Your task to perform on an android device: toggle notification dots Image 0: 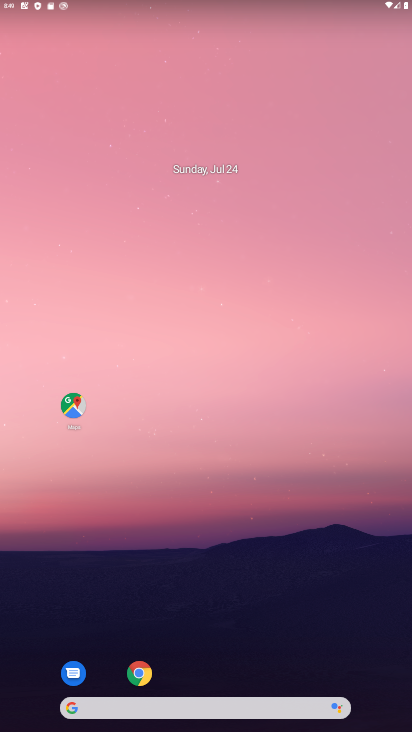
Step 0: drag from (188, 313) to (188, 147)
Your task to perform on an android device: toggle notification dots Image 1: 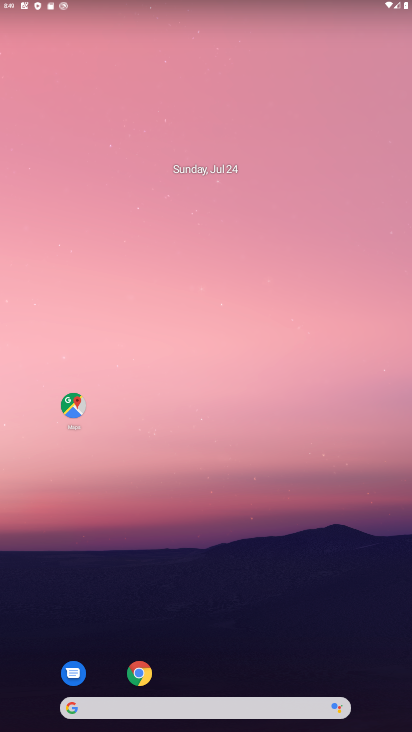
Step 1: drag from (176, 648) to (100, 25)
Your task to perform on an android device: toggle notification dots Image 2: 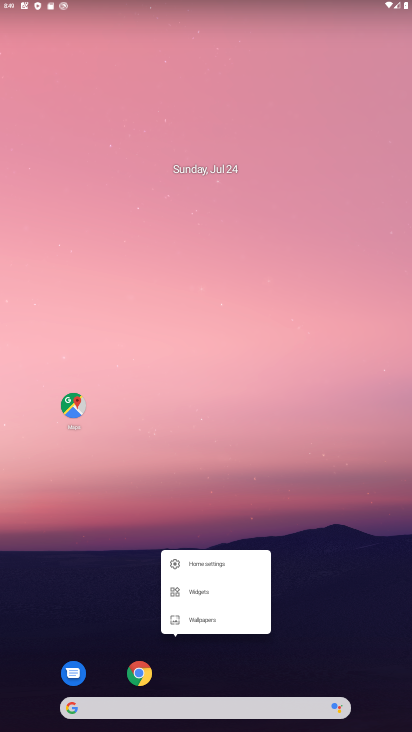
Step 2: click (321, 566)
Your task to perform on an android device: toggle notification dots Image 3: 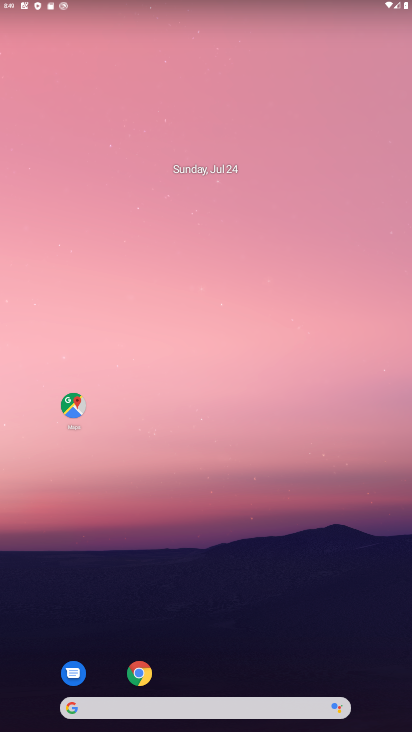
Step 3: drag from (184, 648) to (246, 1)
Your task to perform on an android device: toggle notification dots Image 4: 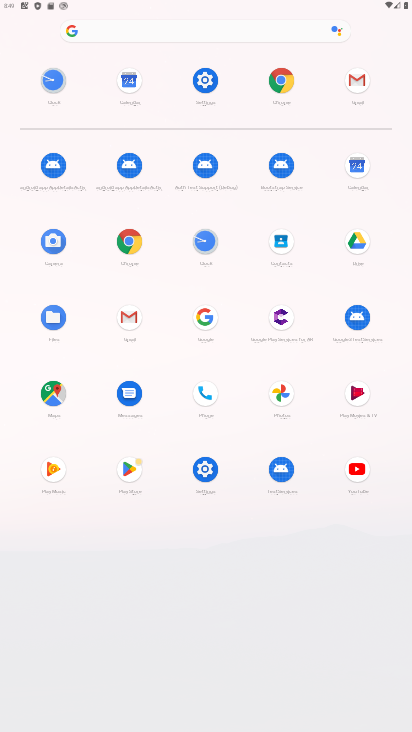
Step 4: click (204, 82)
Your task to perform on an android device: toggle notification dots Image 5: 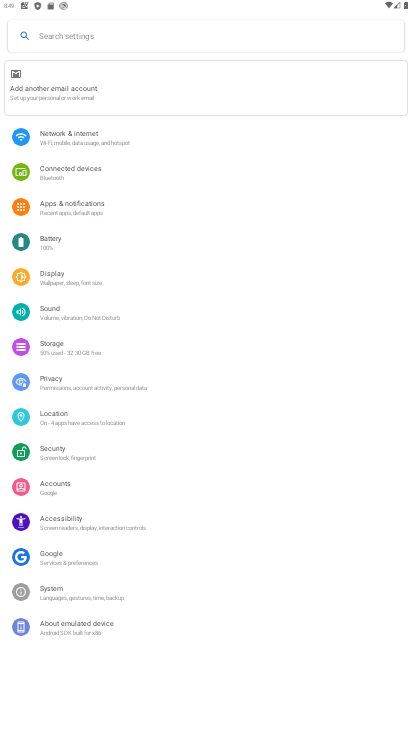
Step 5: click (48, 217)
Your task to perform on an android device: toggle notification dots Image 6: 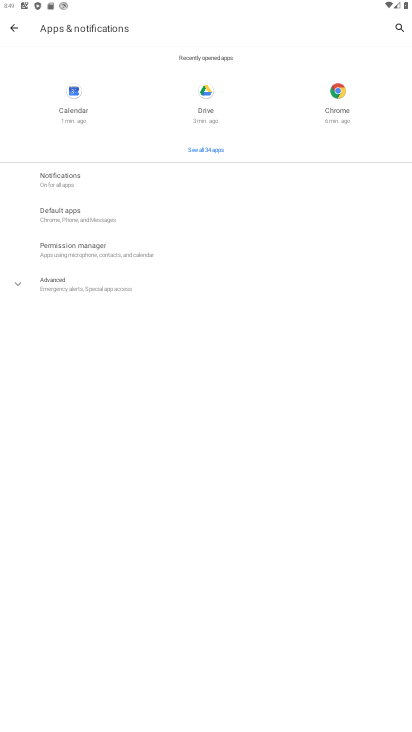
Step 6: click (59, 186)
Your task to perform on an android device: toggle notification dots Image 7: 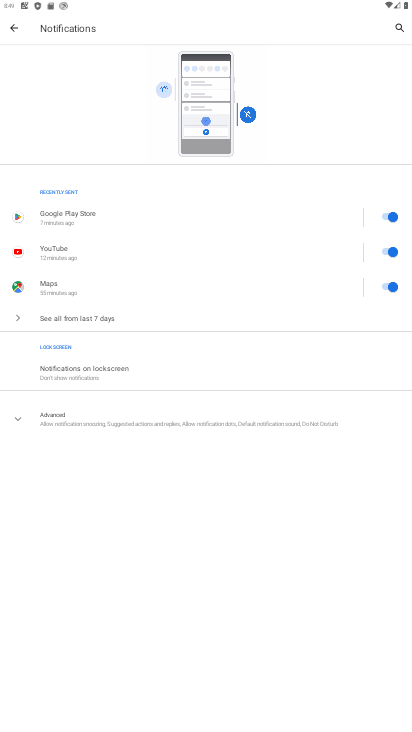
Step 7: click (57, 419)
Your task to perform on an android device: toggle notification dots Image 8: 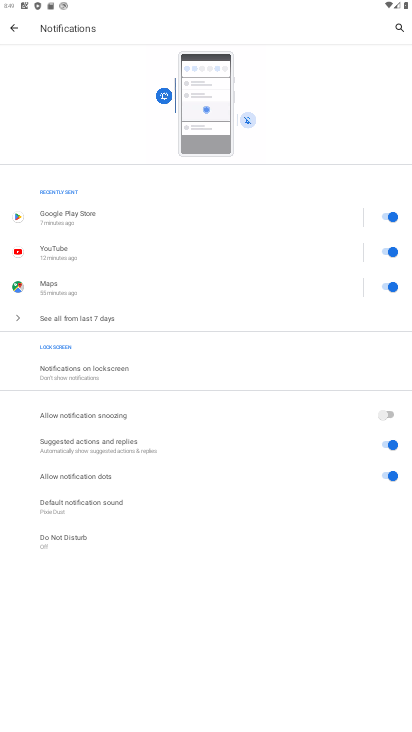
Step 8: click (384, 472)
Your task to perform on an android device: toggle notification dots Image 9: 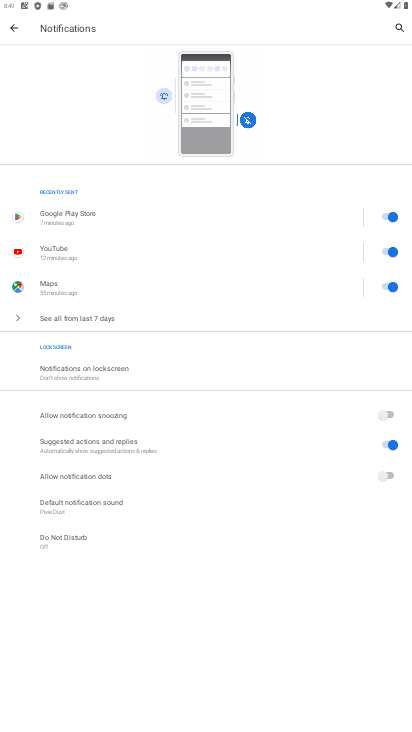
Step 9: task complete